Your task to perform on an android device: Open Google Chrome and open the bookmarks view Image 0: 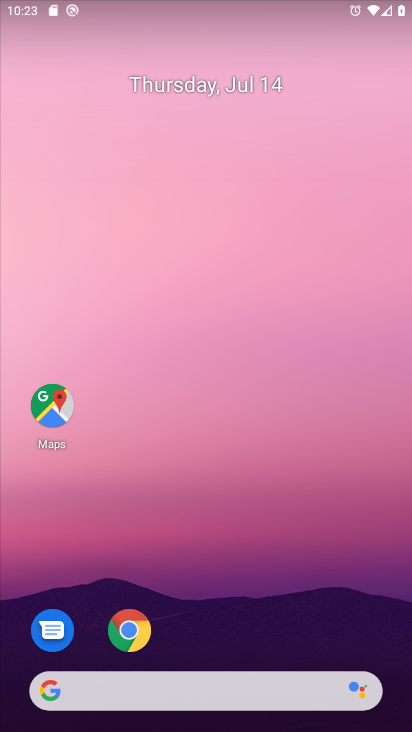
Step 0: drag from (186, 638) to (283, 120)
Your task to perform on an android device: Open Google Chrome and open the bookmarks view Image 1: 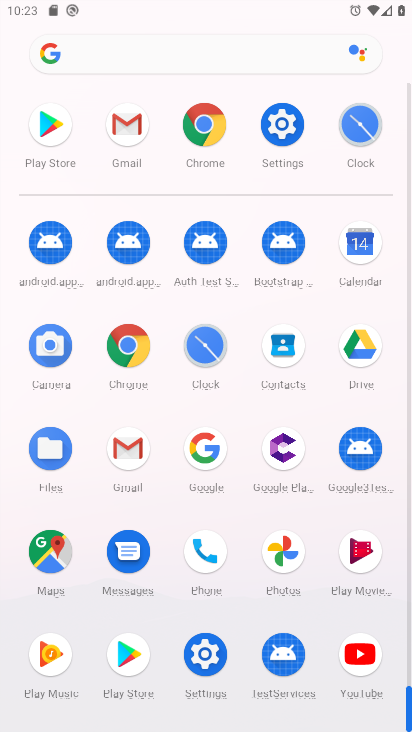
Step 1: click (118, 348)
Your task to perform on an android device: Open Google Chrome and open the bookmarks view Image 2: 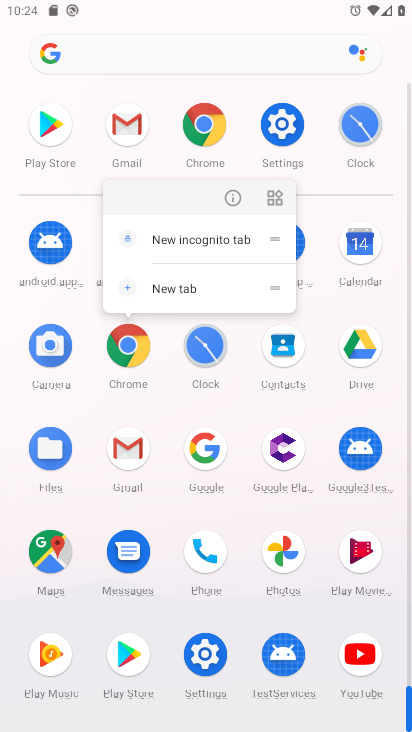
Step 2: click (226, 201)
Your task to perform on an android device: Open Google Chrome and open the bookmarks view Image 3: 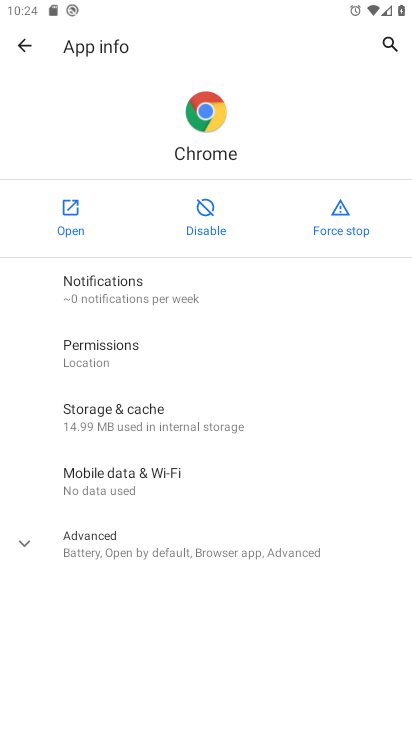
Step 3: click (68, 204)
Your task to perform on an android device: Open Google Chrome and open the bookmarks view Image 4: 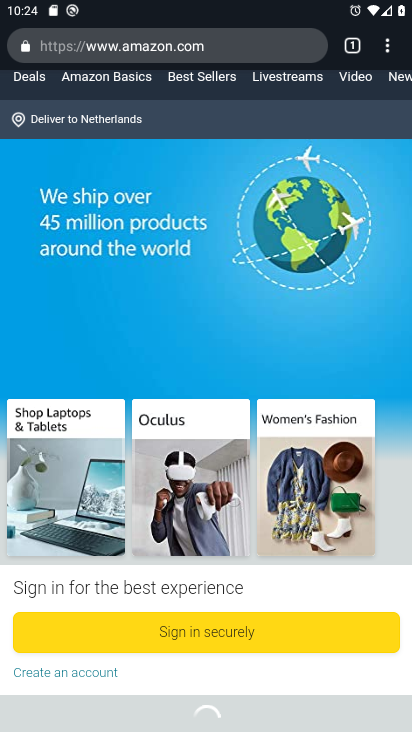
Step 4: click (389, 44)
Your task to perform on an android device: Open Google Chrome and open the bookmarks view Image 5: 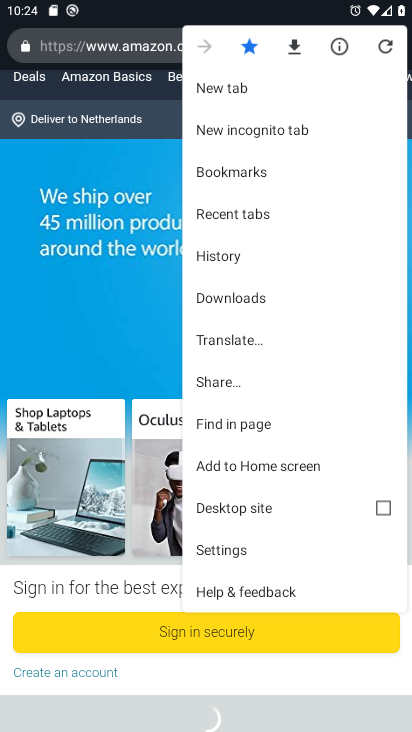
Step 5: drag from (273, 498) to (289, 94)
Your task to perform on an android device: Open Google Chrome and open the bookmarks view Image 6: 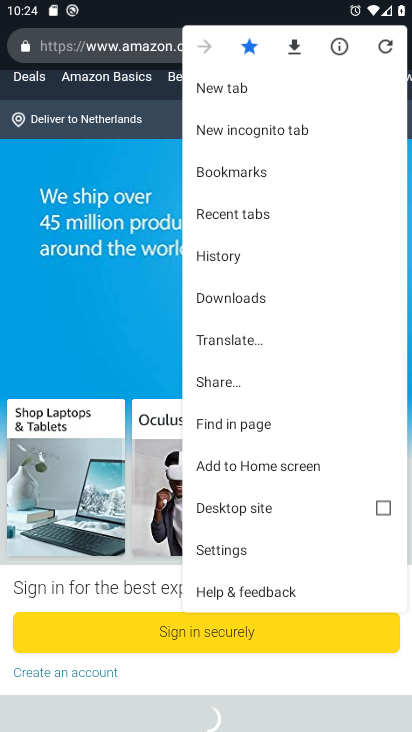
Step 6: click (264, 174)
Your task to perform on an android device: Open Google Chrome and open the bookmarks view Image 7: 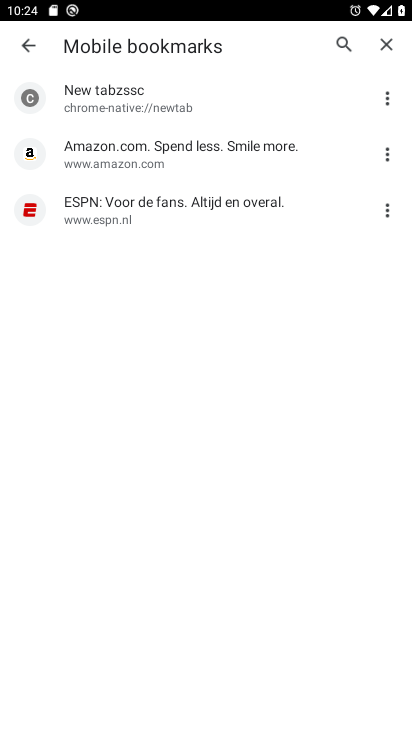
Step 7: task complete